Your task to perform on an android device: see creations saved in the google photos Image 0: 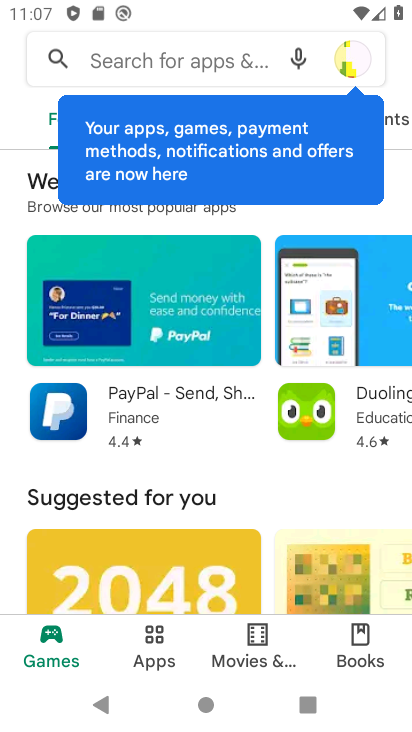
Step 0: press home button
Your task to perform on an android device: see creations saved in the google photos Image 1: 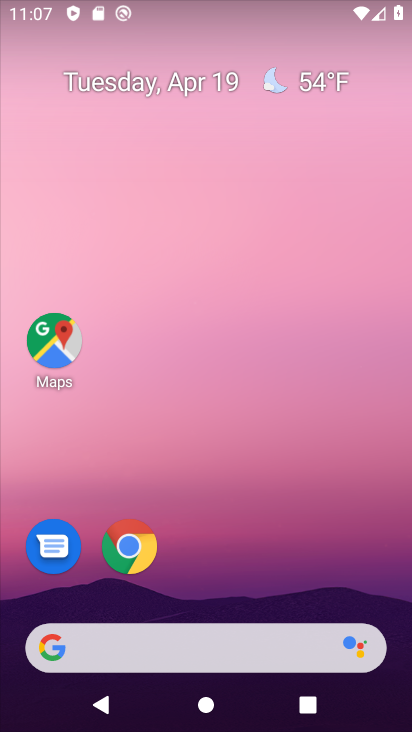
Step 1: drag from (259, 707) to (303, 109)
Your task to perform on an android device: see creations saved in the google photos Image 2: 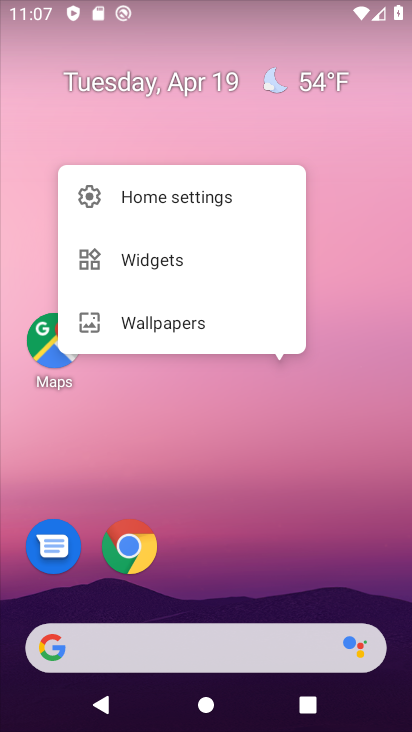
Step 2: click (232, 703)
Your task to perform on an android device: see creations saved in the google photos Image 3: 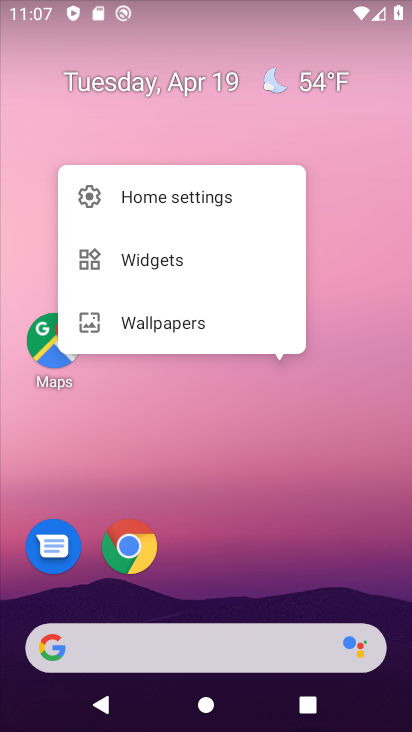
Step 3: drag from (261, 698) to (352, 173)
Your task to perform on an android device: see creations saved in the google photos Image 4: 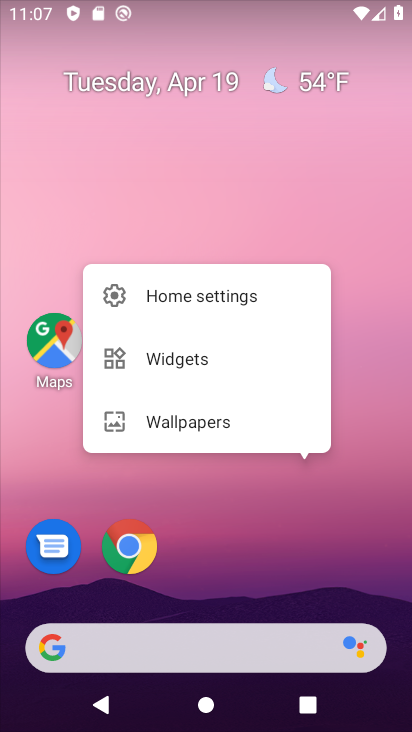
Step 4: drag from (266, 626) to (334, 82)
Your task to perform on an android device: see creations saved in the google photos Image 5: 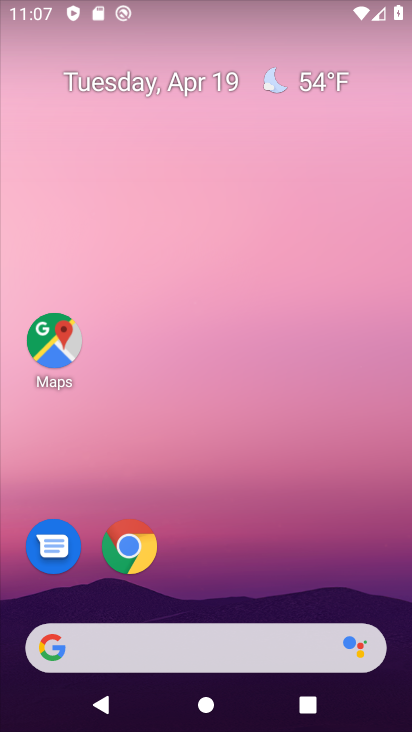
Step 5: drag from (238, 617) to (183, 95)
Your task to perform on an android device: see creations saved in the google photos Image 6: 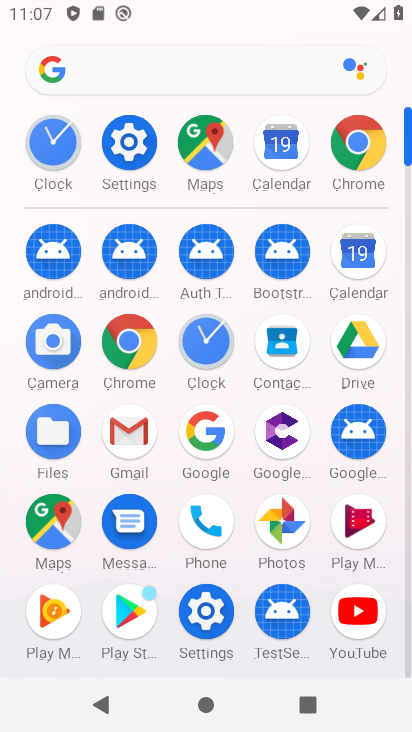
Step 6: click (287, 519)
Your task to perform on an android device: see creations saved in the google photos Image 7: 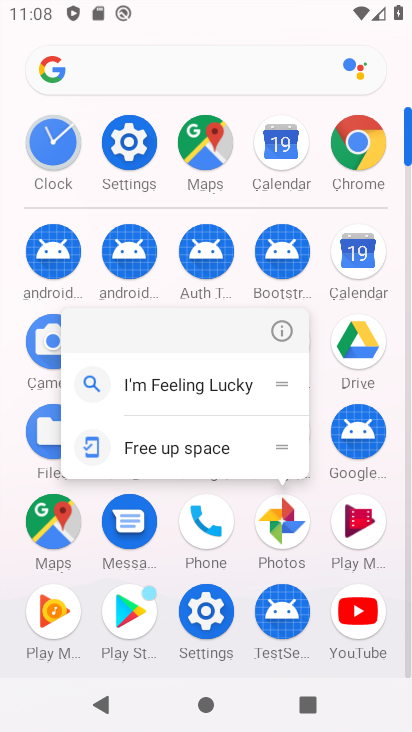
Step 7: click (281, 516)
Your task to perform on an android device: see creations saved in the google photos Image 8: 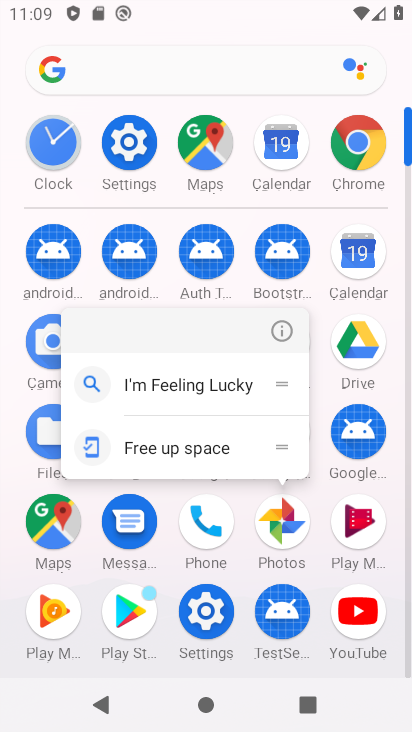
Step 8: click (286, 518)
Your task to perform on an android device: see creations saved in the google photos Image 9: 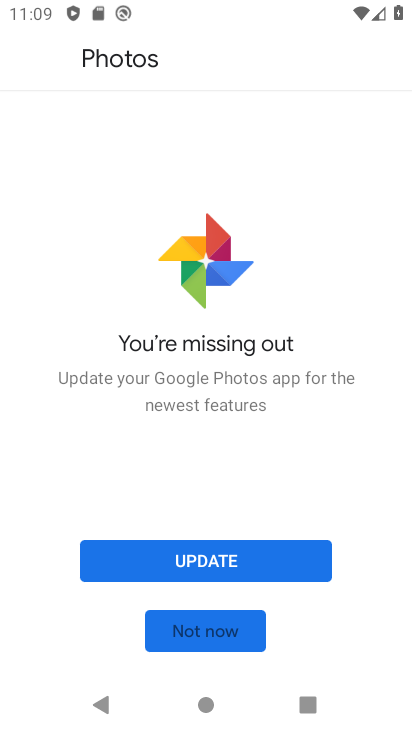
Step 9: click (220, 565)
Your task to perform on an android device: see creations saved in the google photos Image 10: 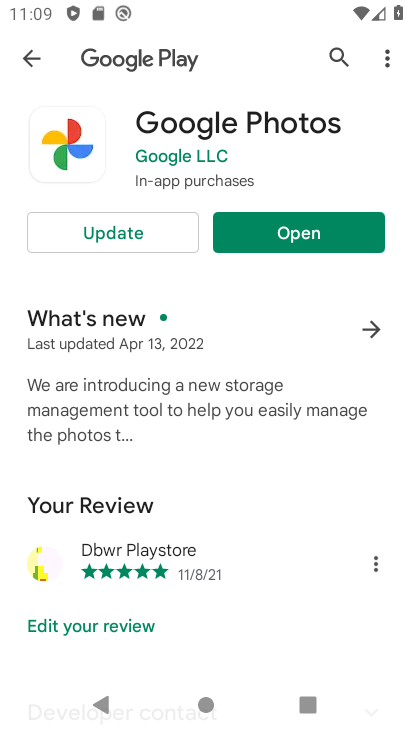
Step 10: click (131, 235)
Your task to perform on an android device: see creations saved in the google photos Image 11: 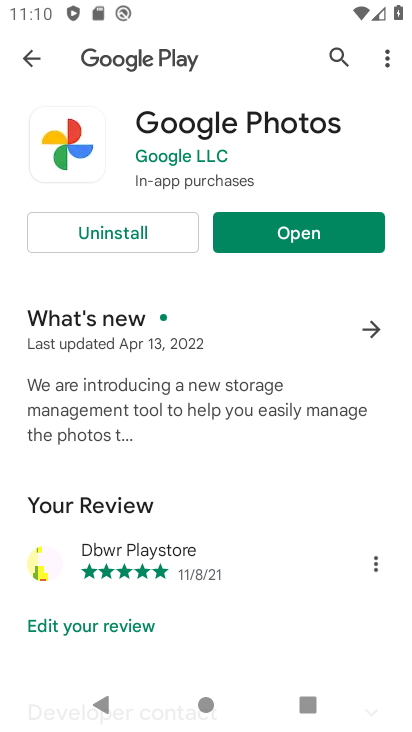
Step 11: click (322, 227)
Your task to perform on an android device: see creations saved in the google photos Image 12: 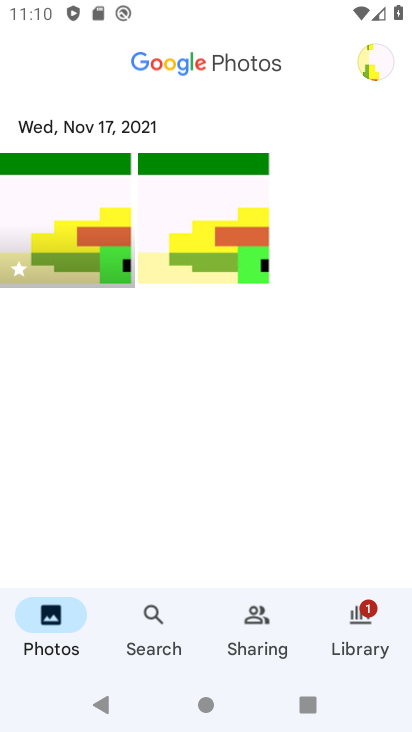
Step 12: click (139, 615)
Your task to perform on an android device: see creations saved in the google photos Image 13: 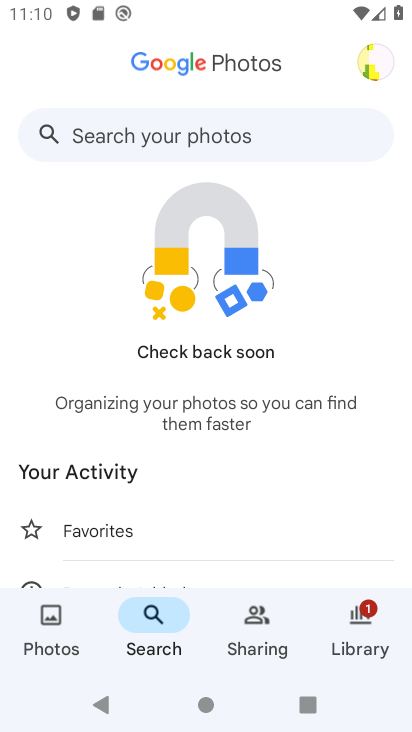
Step 13: drag from (277, 490) to (333, 75)
Your task to perform on an android device: see creations saved in the google photos Image 14: 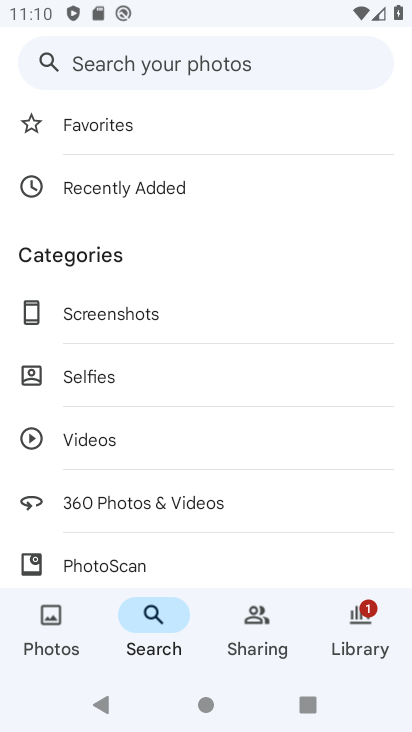
Step 14: drag from (315, 194) to (329, 479)
Your task to perform on an android device: see creations saved in the google photos Image 15: 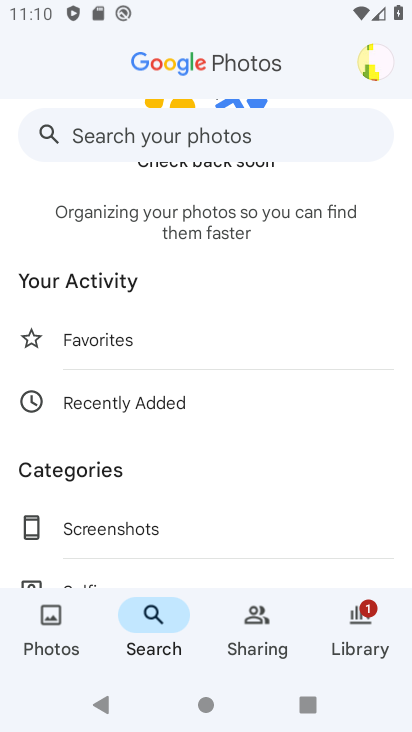
Step 15: click (223, 130)
Your task to perform on an android device: see creations saved in the google photos Image 16: 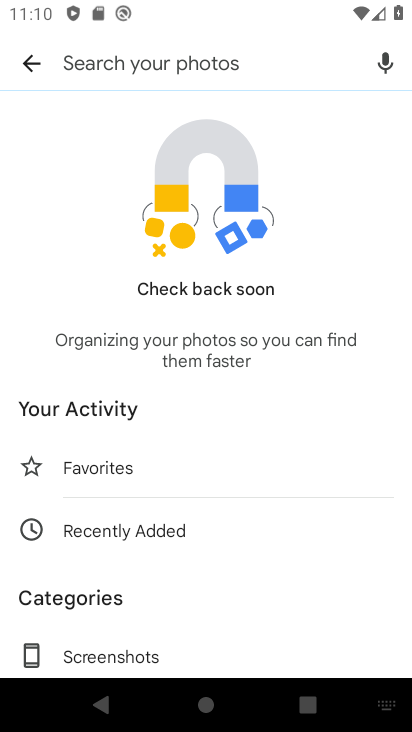
Step 16: drag from (255, 618) to (293, 141)
Your task to perform on an android device: see creations saved in the google photos Image 17: 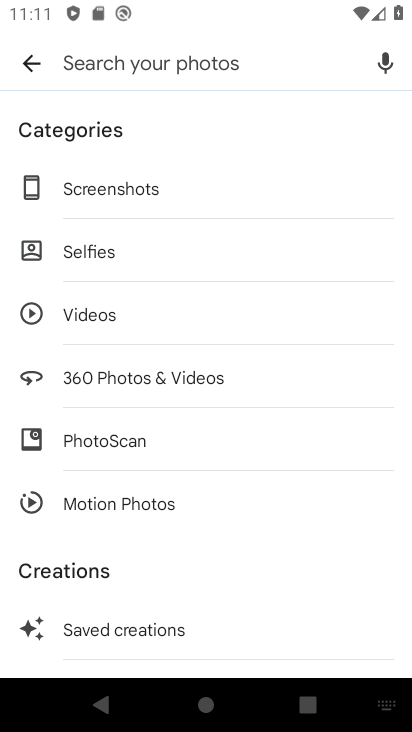
Step 17: click (171, 633)
Your task to perform on an android device: see creations saved in the google photos Image 18: 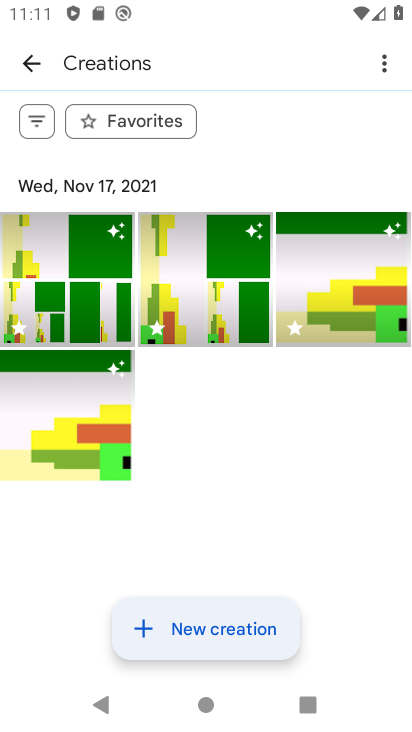
Step 18: task complete